Your task to perform on an android device: Go to calendar. Show me events next week Image 0: 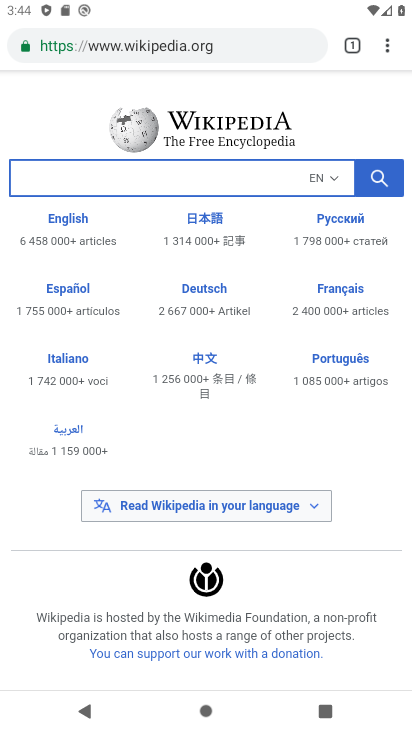
Step 0: press home button
Your task to perform on an android device: Go to calendar. Show me events next week Image 1: 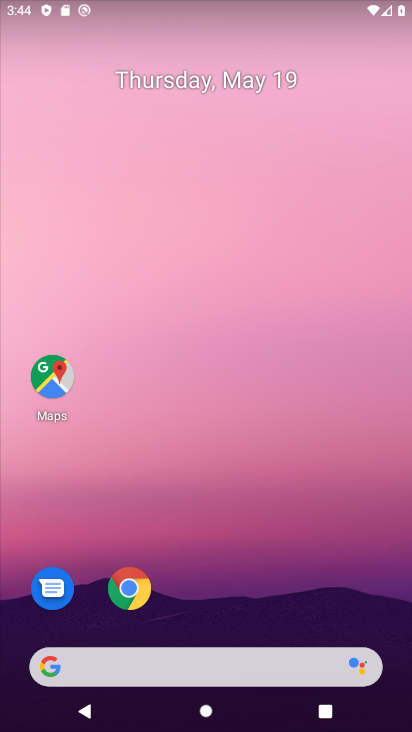
Step 1: drag from (204, 568) to (241, 195)
Your task to perform on an android device: Go to calendar. Show me events next week Image 2: 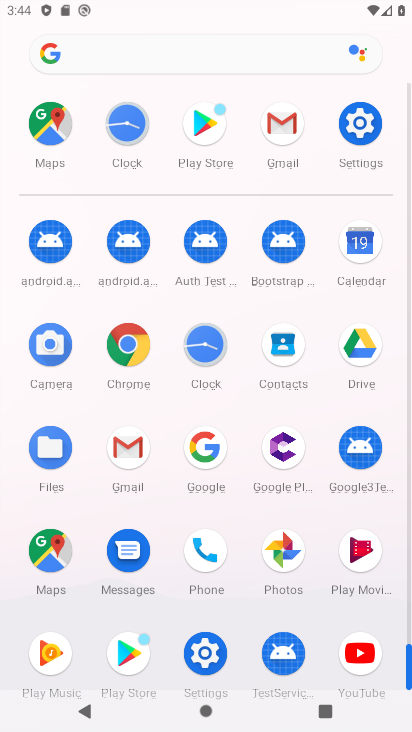
Step 2: click (363, 253)
Your task to perform on an android device: Go to calendar. Show me events next week Image 3: 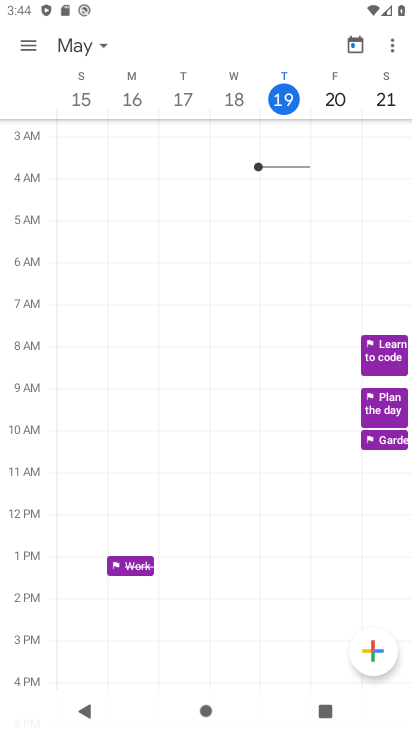
Step 3: drag from (112, 98) to (6, 59)
Your task to perform on an android device: Go to calendar. Show me events next week Image 4: 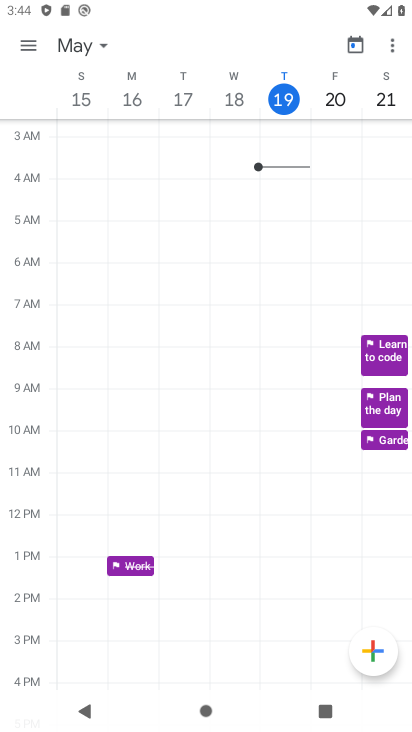
Step 4: drag from (326, 92) to (1, 54)
Your task to perform on an android device: Go to calendar. Show me events next week Image 5: 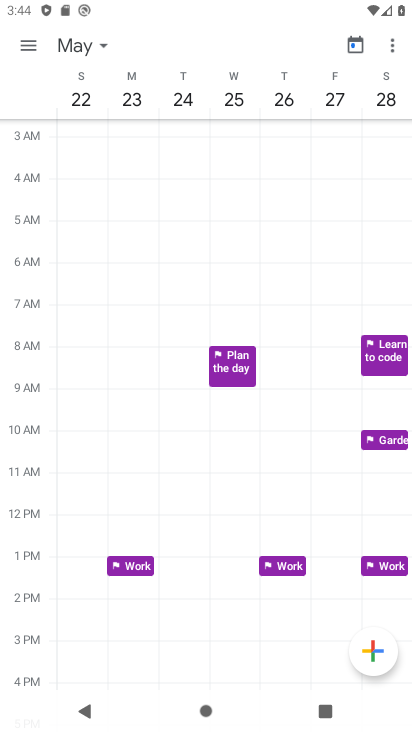
Step 5: click (28, 43)
Your task to perform on an android device: Go to calendar. Show me events next week Image 6: 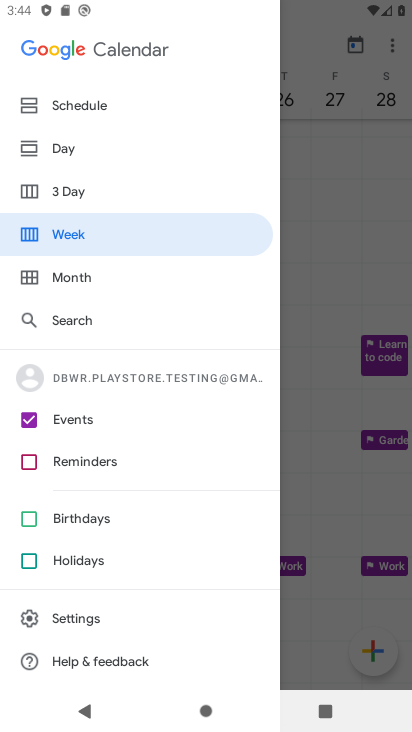
Step 6: click (335, 226)
Your task to perform on an android device: Go to calendar. Show me events next week Image 7: 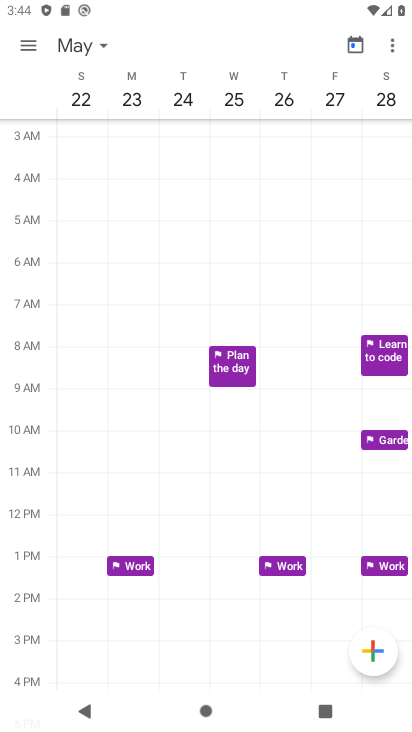
Step 7: task complete